Your task to perform on an android device: change alarm snooze length Image 0: 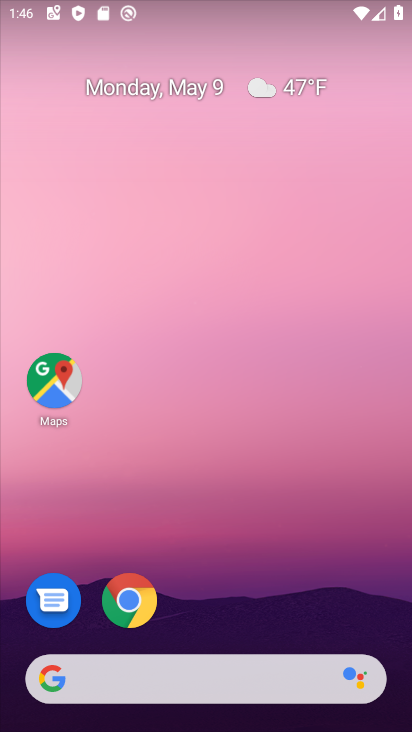
Step 0: drag from (186, 604) to (248, 190)
Your task to perform on an android device: change alarm snooze length Image 1: 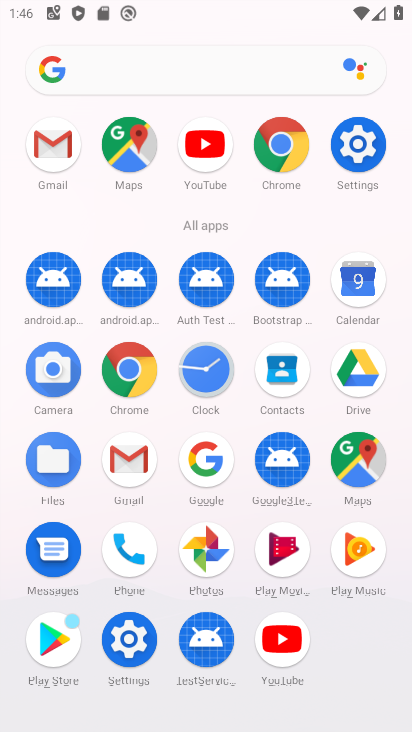
Step 1: click (353, 142)
Your task to perform on an android device: change alarm snooze length Image 2: 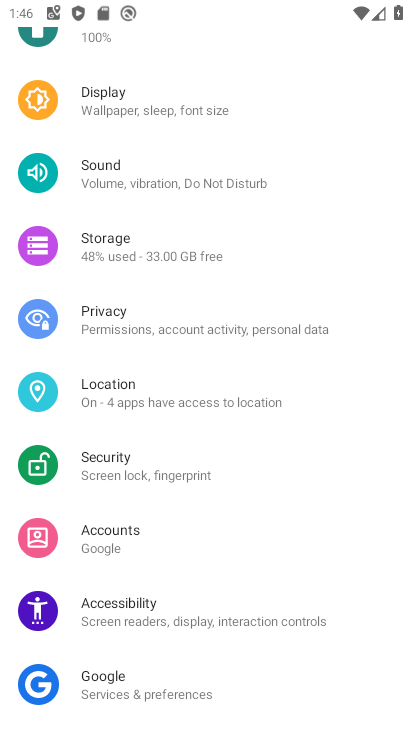
Step 2: drag from (353, 142) to (245, 628)
Your task to perform on an android device: change alarm snooze length Image 3: 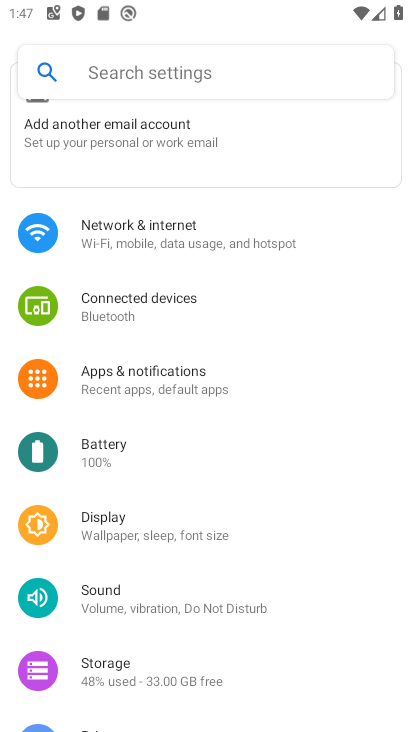
Step 3: press home button
Your task to perform on an android device: change alarm snooze length Image 4: 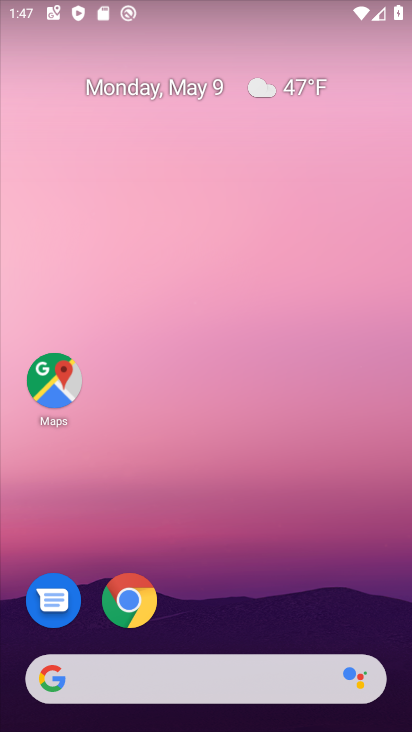
Step 4: drag from (229, 615) to (249, 227)
Your task to perform on an android device: change alarm snooze length Image 5: 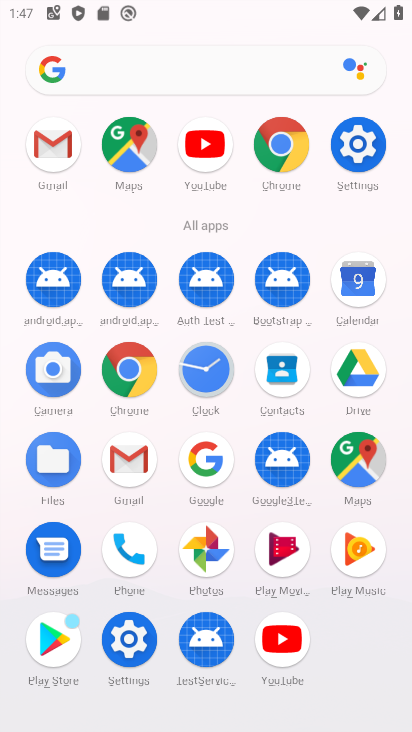
Step 5: click (213, 379)
Your task to perform on an android device: change alarm snooze length Image 6: 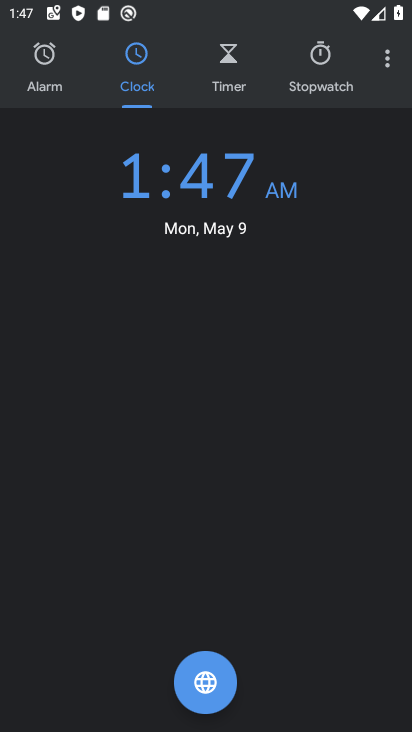
Step 6: click (398, 43)
Your task to perform on an android device: change alarm snooze length Image 7: 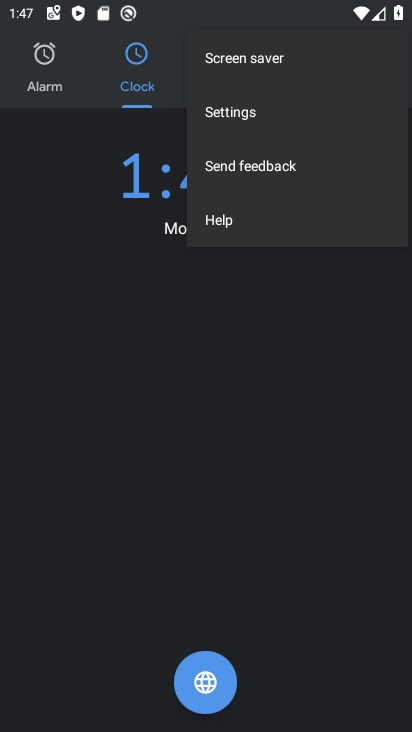
Step 7: click (257, 128)
Your task to perform on an android device: change alarm snooze length Image 8: 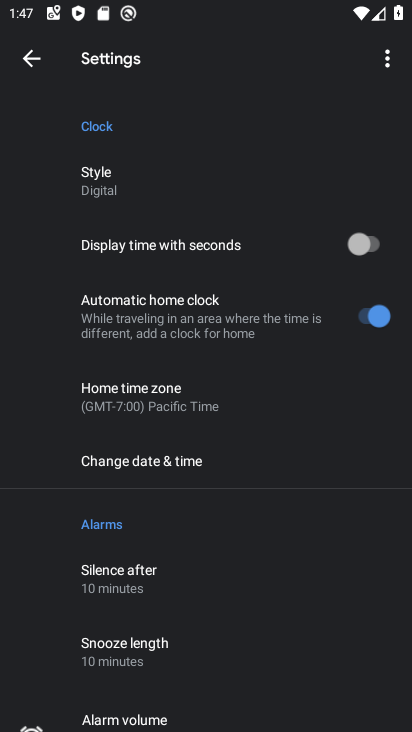
Step 8: click (115, 659)
Your task to perform on an android device: change alarm snooze length Image 9: 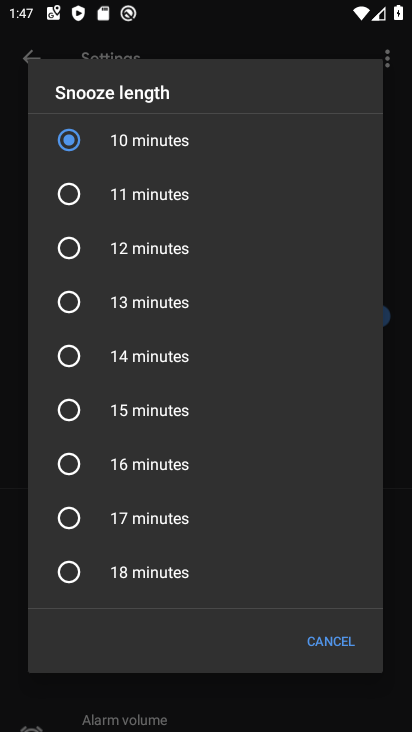
Step 9: click (130, 588)
Your task to perform on an android device: change alarm snooze length Image 10: 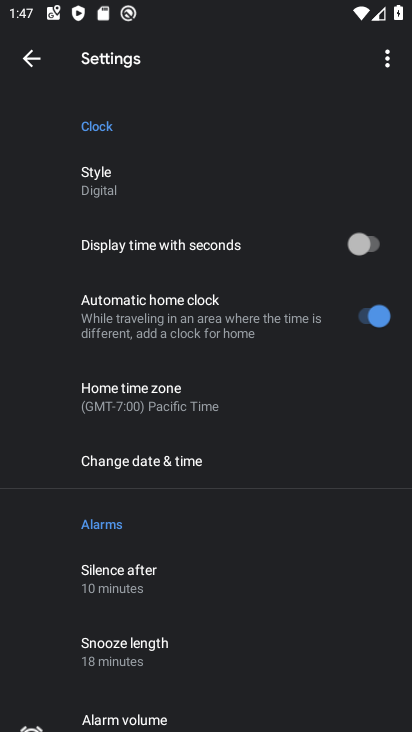
Step 10: task complete